Your task to perform on an android device: turn on bluetooth scan Image 0: 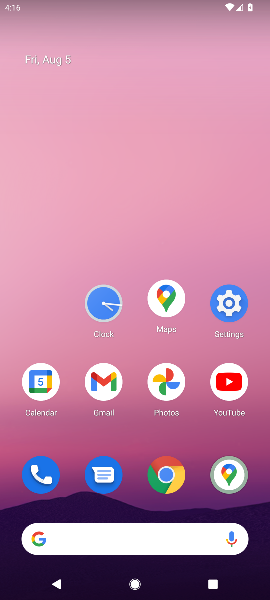
Step 0: click (232, 299)
Your task to perform on an android device: turn on bluetooth scan Image 1: 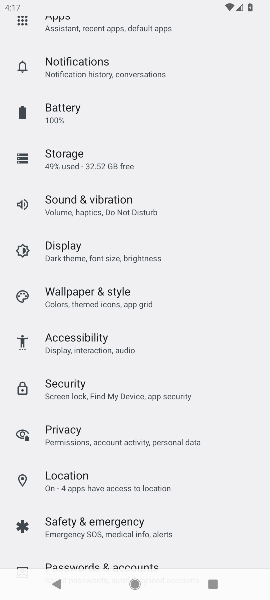
Step 1: click (71, 473)
Your task to perform on an android device: turn on bluetooth scan Image 2: 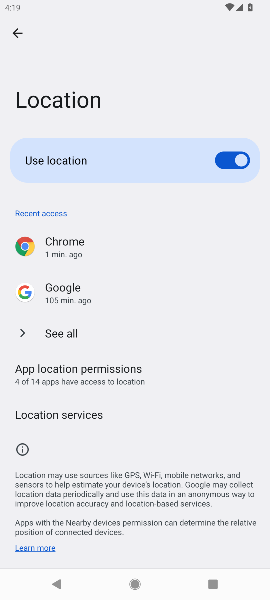
Step 2: drag from (121, 455) to (133, 267)
Your task to perform on an android device: turn on bluetooth scan Image 3: 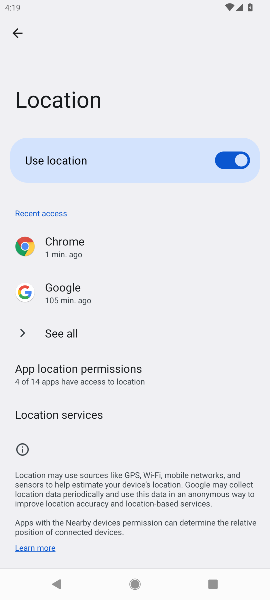
Step 3: drag from (147, 525) to (170, 278)
Your task to perform on an android device: turn on bluetooth scan Image 4: 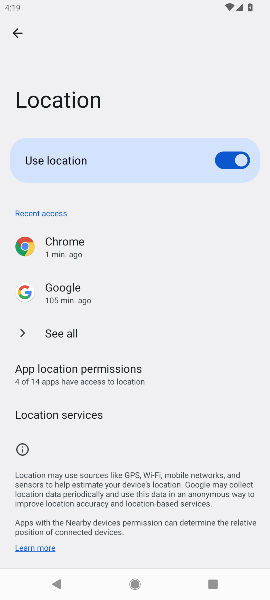
Step 4: click (48, 413)
Your task to perform on an android device: turn on bluetooth scan Image 5: 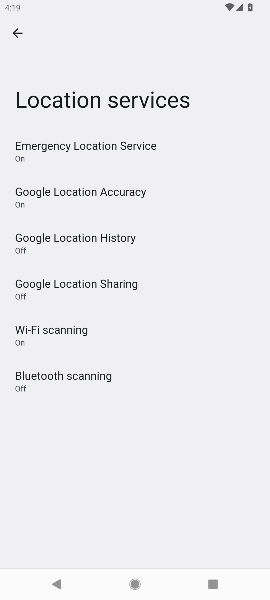
Step 5: click (55, 376)
Your task to perform on an android device: turn on bluetooth scan Image 6: 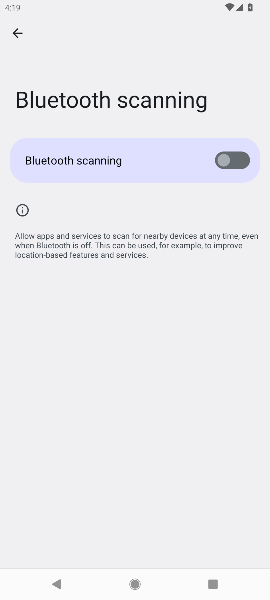
Step 6: click (235, 164)
Your task to perform on an android device: turn on bluetooth scan Image 7: 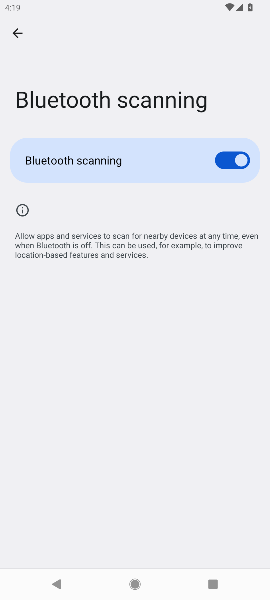
Step 7: task complete